Your task to perform on an android device: Open network settings Image 0: 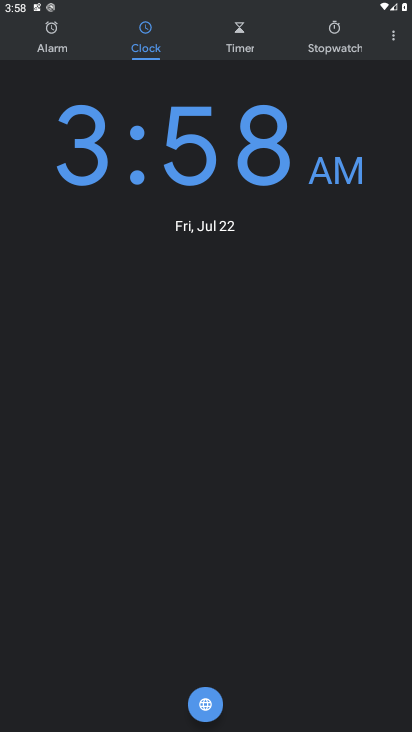
Step 0: press home button
Your task to perform on an android device: Open network settings Image 1: 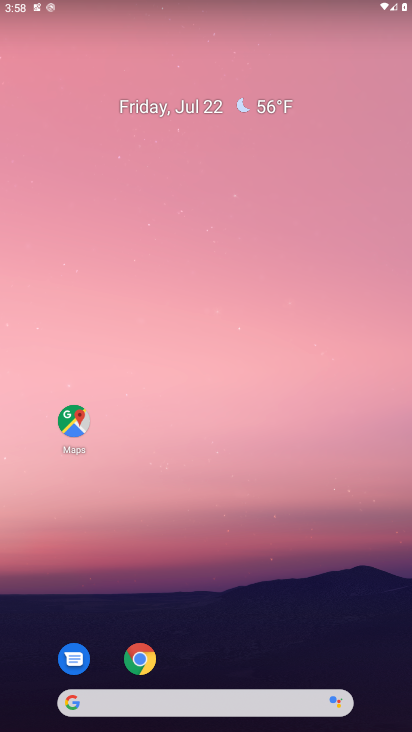
Step 1: drag from (204, 666) to (255, 121)
Your task to perform on an android device: Open network settings Image 2: 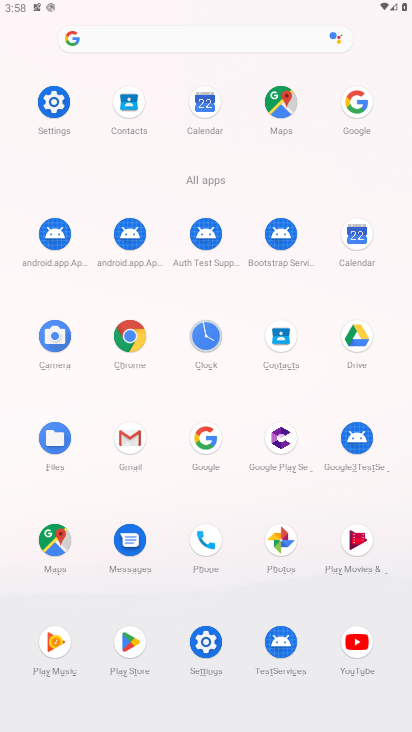
Step 2: click (204, 645)
Your task to perform on an android device: Open network settings Image 3: 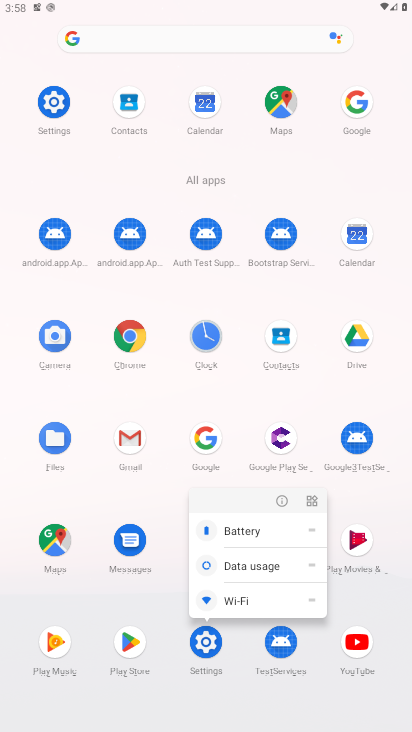
Step 3: click (196, 638)
Your task to perform on an android device: Open network settings Image 4: 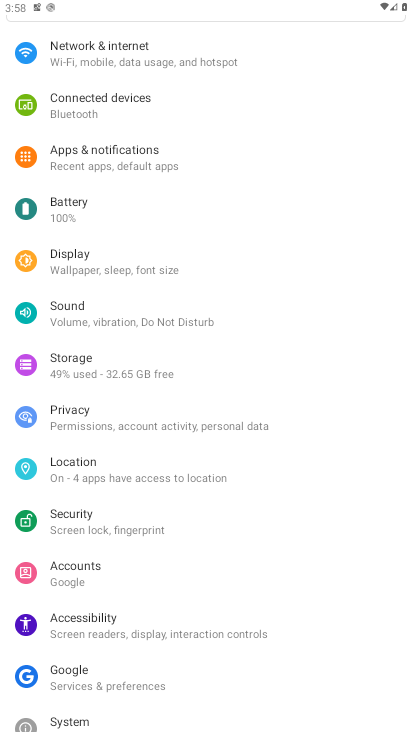
Step 4: click (121, 59)
Your task to perform on an android device: Open network settings Image 5: 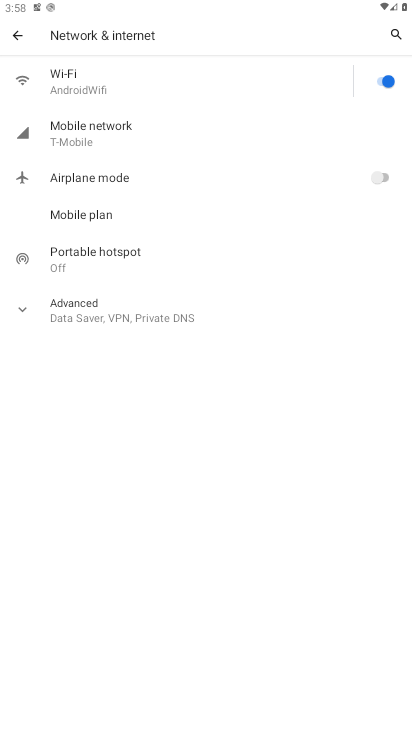
Step 5: click (97, 312)
Your task to perform on an android device: Open network settings Image 6: 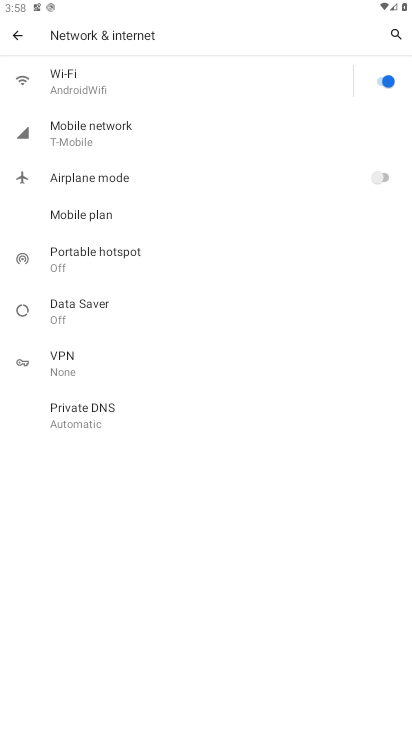
Step 6: click (114, 132)
Your task to perform on an android device: Open network settings Image 7: 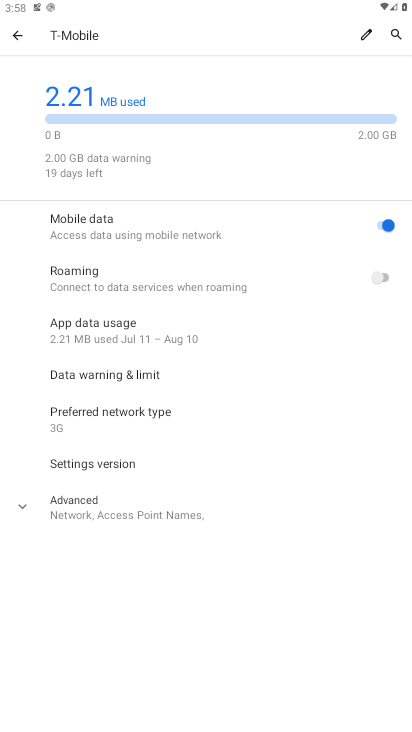
Step 7: click (131, 513)
Your task to perform on an android device: Open network settings Image 8: 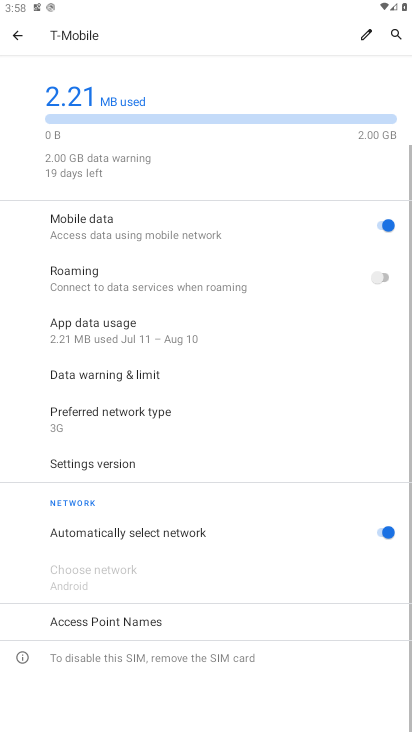
Step 8: task complete